Your task to perform on an android device: turn notification dots on Image 0: 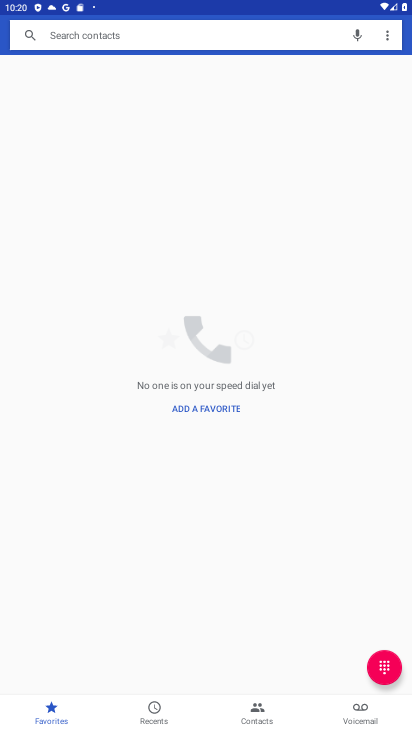
Step 0: press home button
Your task to perform on an android device: turn notification dots on Image 1: 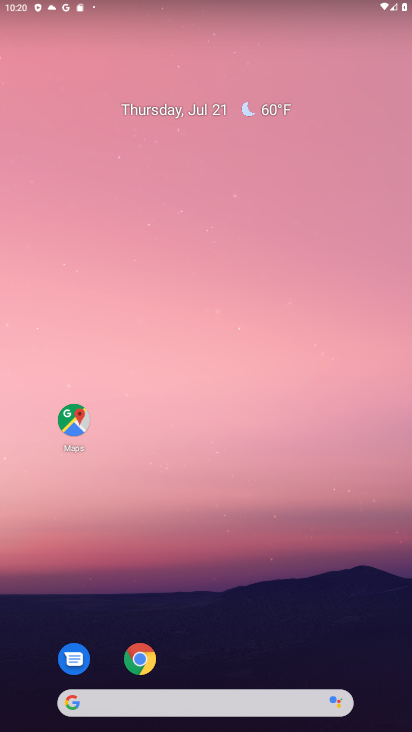
Step 1: drag from (251, 629) to (223, 147)
Your task to perform on an android device: turn notification dots on Image 2: 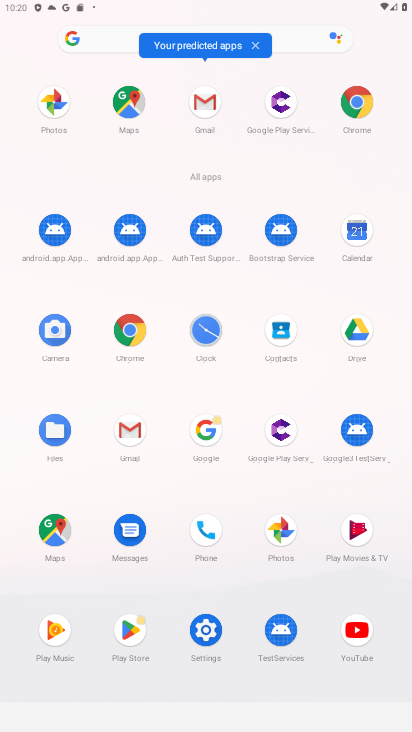
Step 2: click (203, 643)
Your task to perform on an android device: turn notification dots on Image 3: 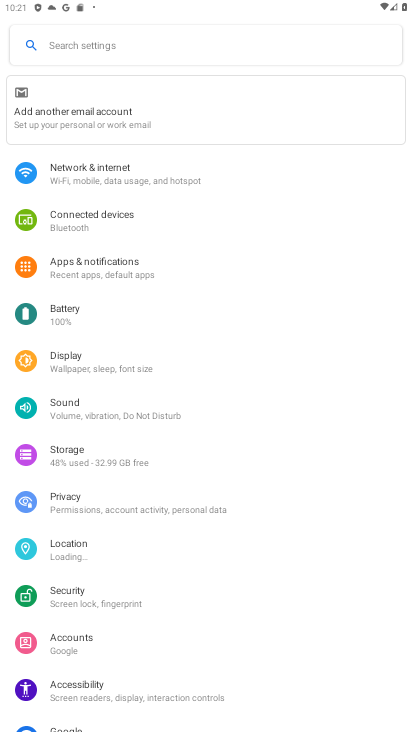
Step 3: click (164, 265)
Your task to perform on an android device: turn notification dots on Image 4: 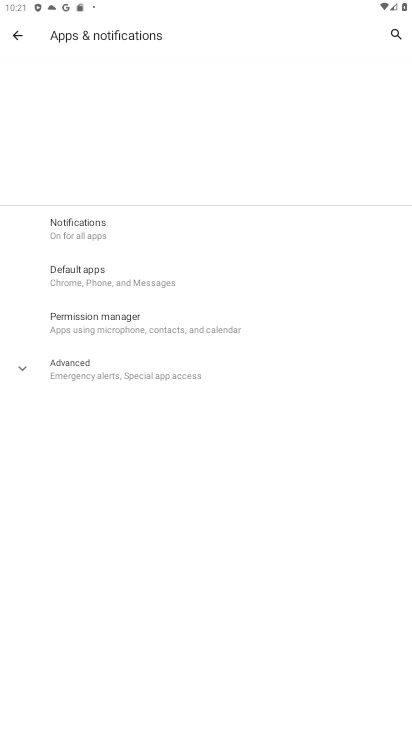
Step 4: click (133, 229)
Your task to perform on an android device: turn notification dots on Image 5: 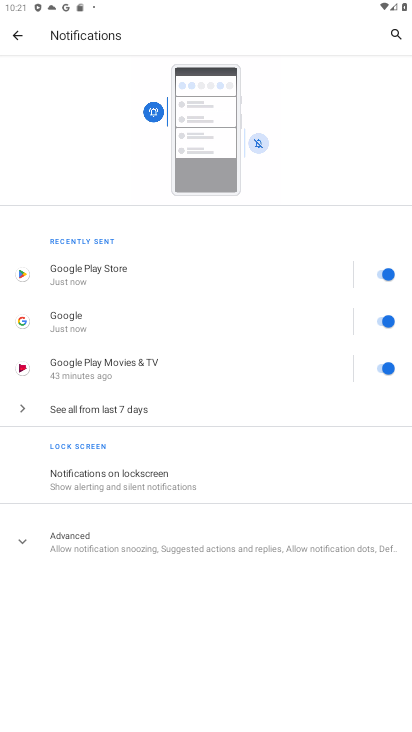
Step 5: click (309, 538)
Your task to perform on an android device: turn notification dots on Image 6: 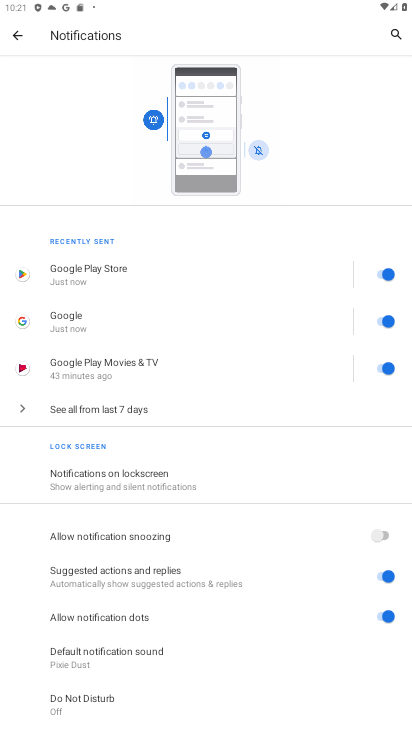
Step 6: task complete